Your task to perform on an android device: Open network settings Image 0: 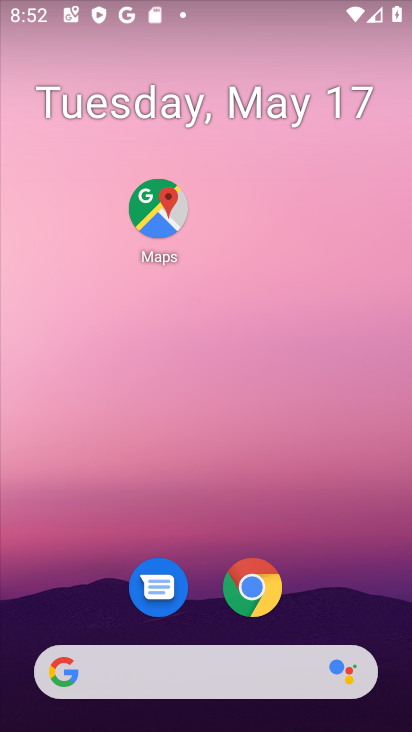
Step 0: press home button
Your task to perform on an android device: Open network settings Image 1: 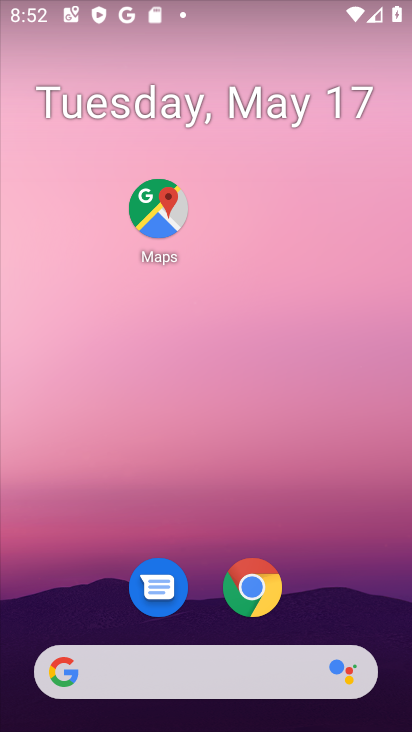
Step 1: drag from (79, 542) to (278, 144)
Your task to perform on an android device: Open network settings Image 2: 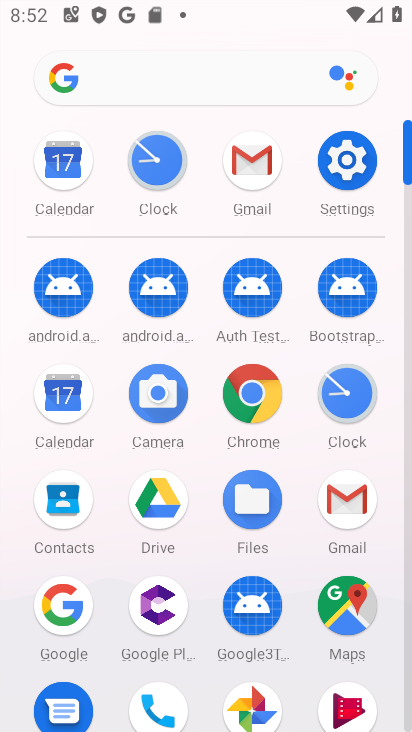
Step 2: click (373, 169)
Your task to perform on an android device: Open network settings Image 3: 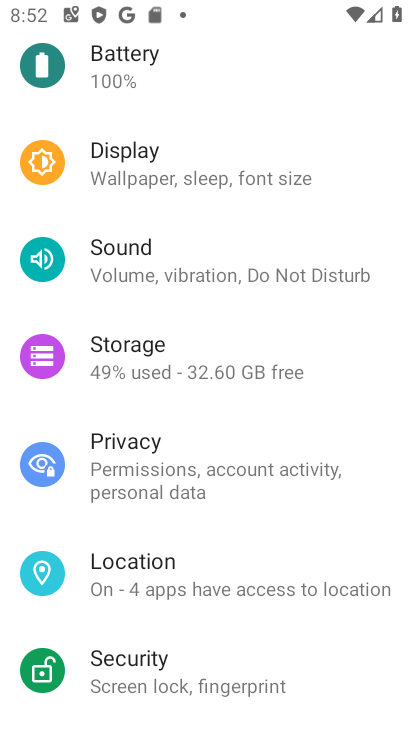
Step 3: drag from (227, 147) to (264, 582)
Your task to perform on an android device: Open network settings Image 4: 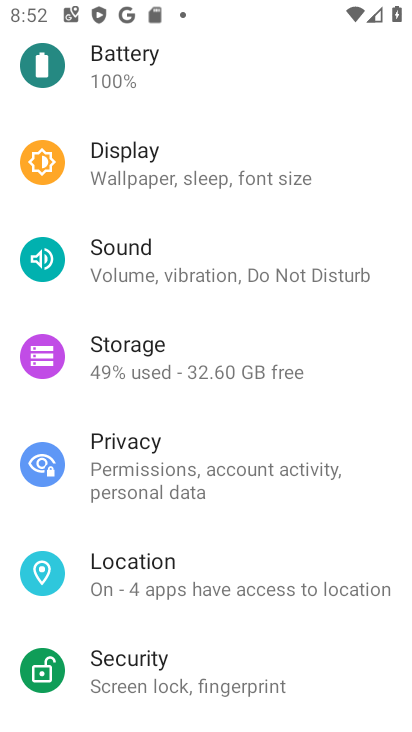
Step 4: drag from (221, 92) to (275, 519)
Your task to perform on an android device: Open network settings Image 5: 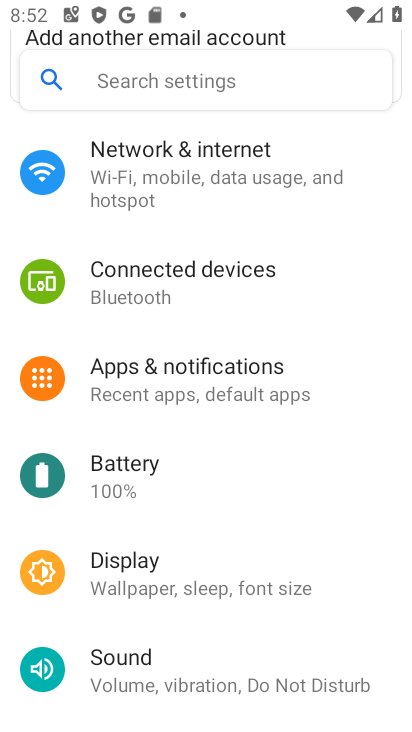
Step 5: click (216, 186)
Your task to perform on an android device: Open network settings Image 6: 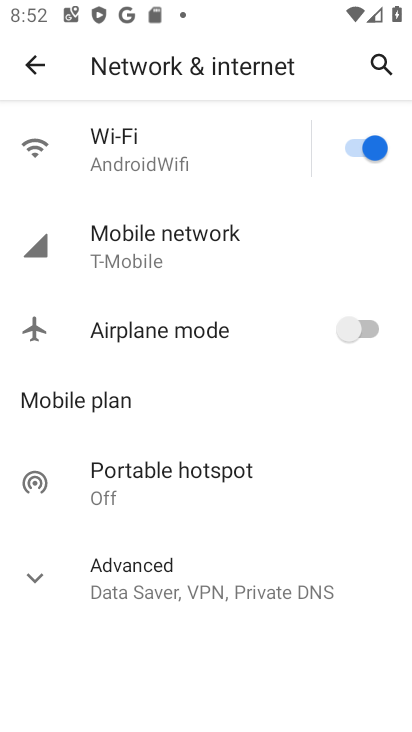
Step 6: click (215, 236)
Your task to perform on an android device: Open network settings Image 7: 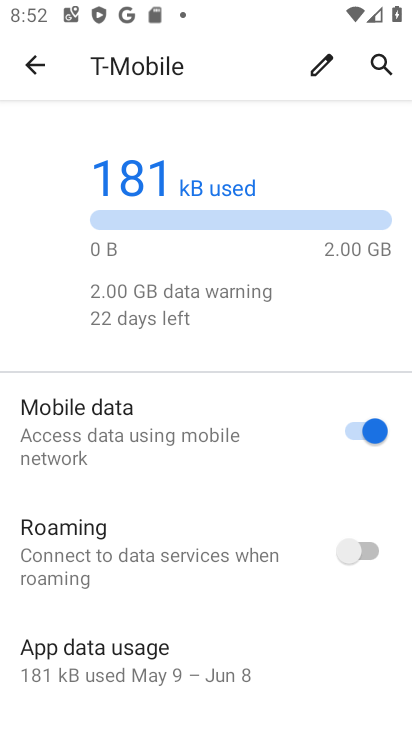
Step 7: task complete